Your task to perform on an android device: toggle sleep mode Image 0: 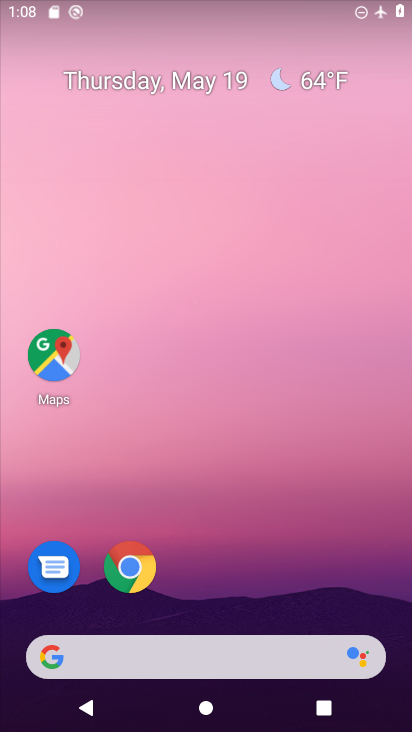
Step 0: drag from (183, 568) to (213, 79)
Your task to perform on an android device: toggle sleep mode Image 1: 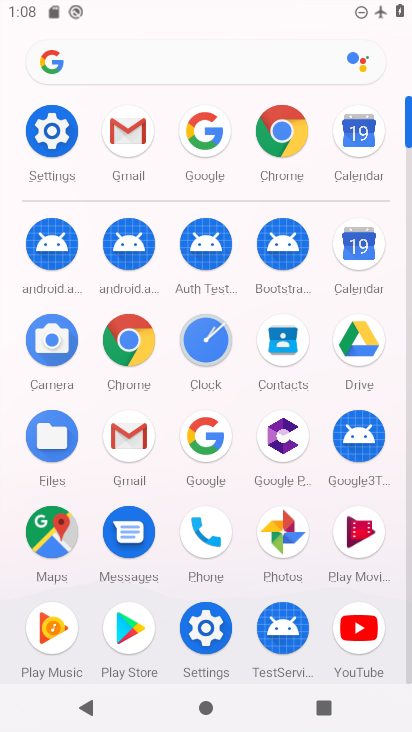
Step 1: click (73, 139)
Your task to perform on an android device: toggle sleep mode Image 2: 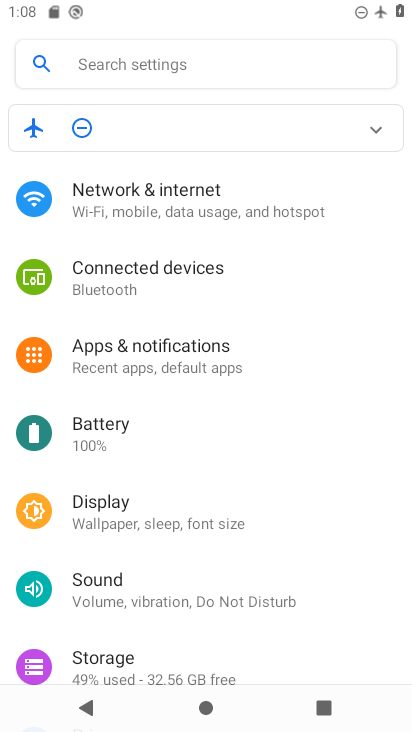
Step 2: click (219, 524)
Your task to perform on an android device: toggle sleep mode Image 3: 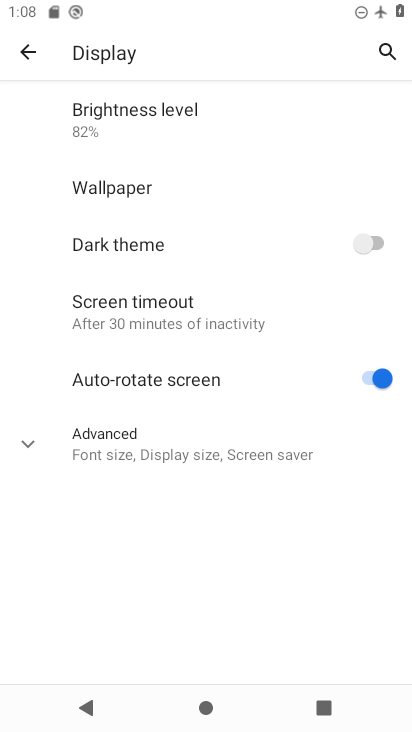
Step 3: click (31, 450)
Your task to perform on an android device: toggle sleep mode Image 4: 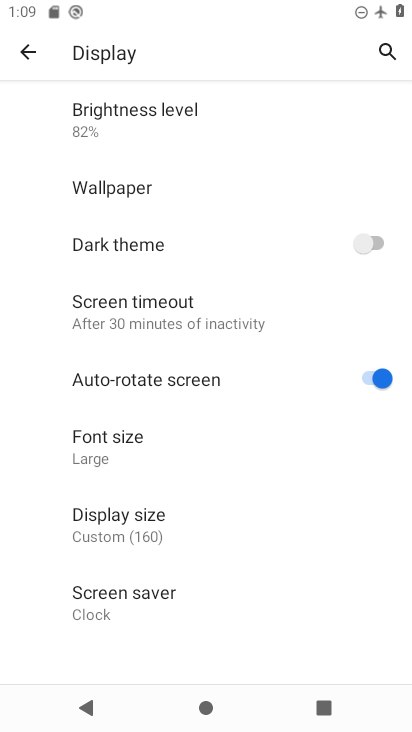
Step 4: task complete